Your task to perform on an android device: open a bookmark in the chrome app Image 0: 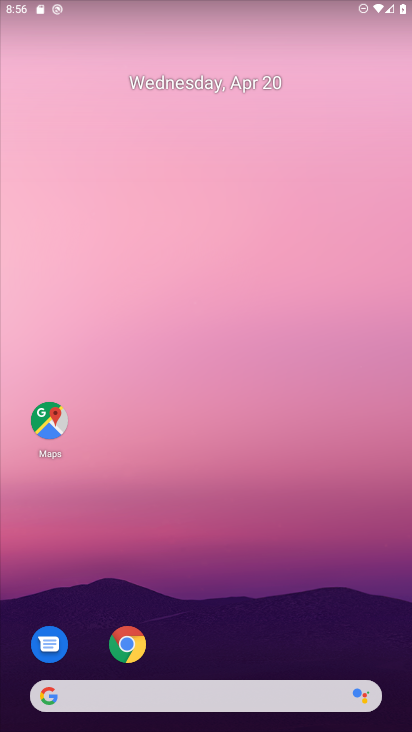
Step 0: drag from (327, 542) to (319, 481)
Your task to perform on an android device: open a bookmark in the chrome app Image 1: 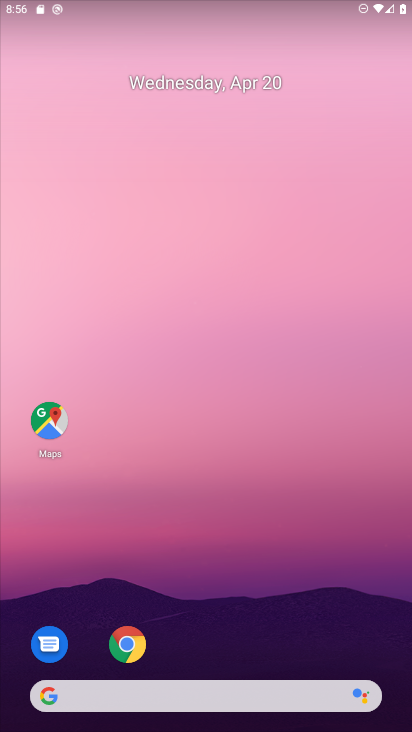
Step 1: drag from (313, 636) to (216, 53)
Your task to perform on an android device: open a bookmark in the chrome app Image 2: 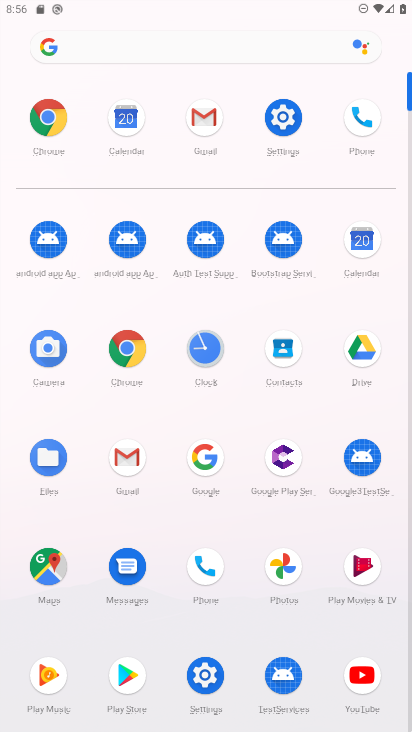
Step 2: click (122, 357)
Your task to perform on an android device: open a bookmark in the chrome app Image 3: 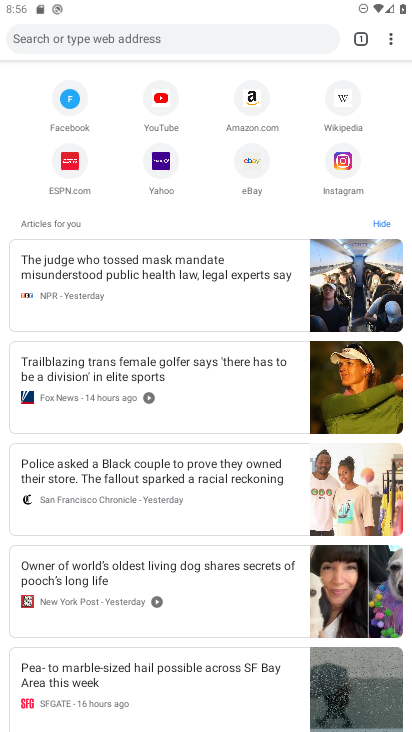
Step 3: click (387, 34)
Your task to perform on an android device: open a bookmark in the chrome app Image 4: 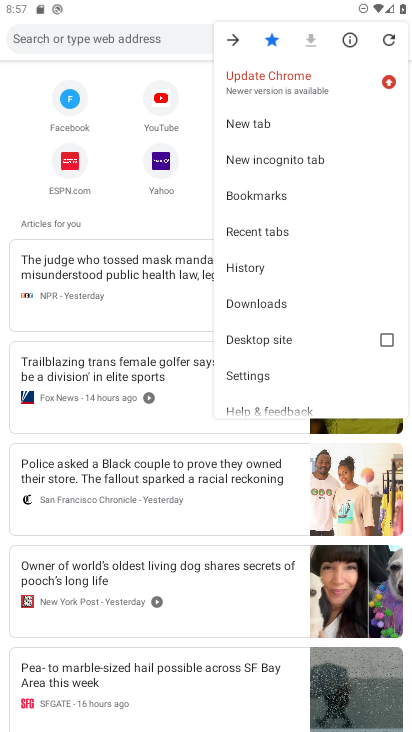
Step 4: click (323, 192)
Your task to perform on an android device: open a bookmark in the chrome app Image 5: 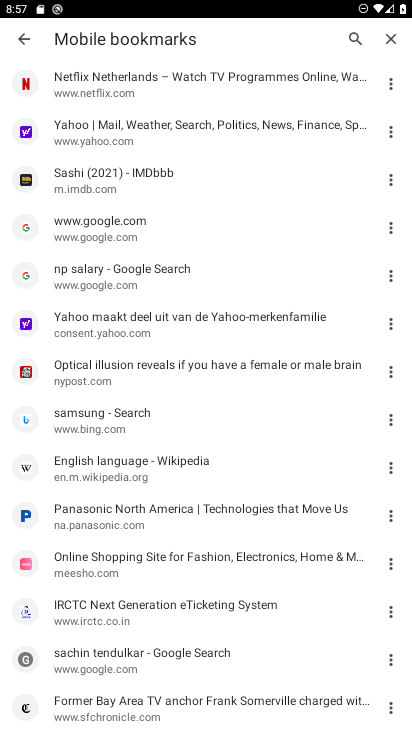
Step 5: task complete